Your task to perform on an android device: set default search engine in the chrome app Image 0: 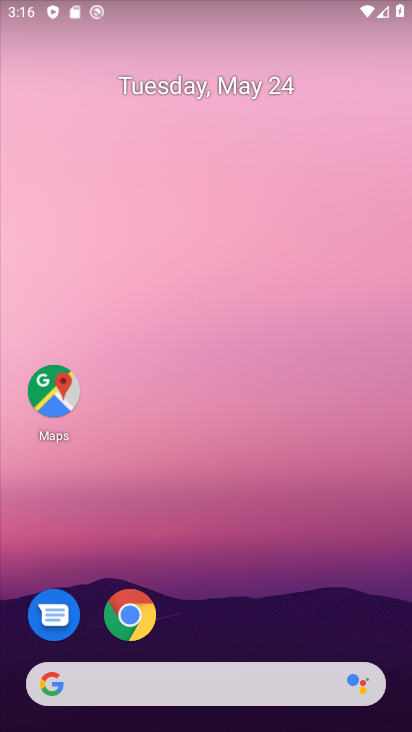
Step 0: drag from (250, 717) to (250, 69)
Your task to perform on an android device: set default search engine in the chrome app Image 1: 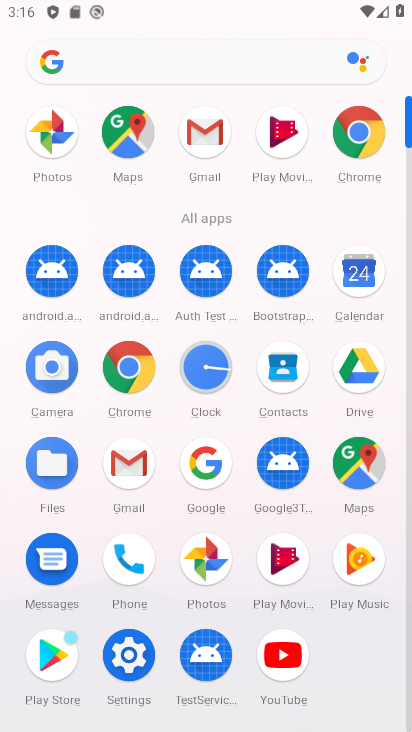
Step 1: click (125, 372)
Your task to perform on an android device: set default search engine in the chrome app Image 2: 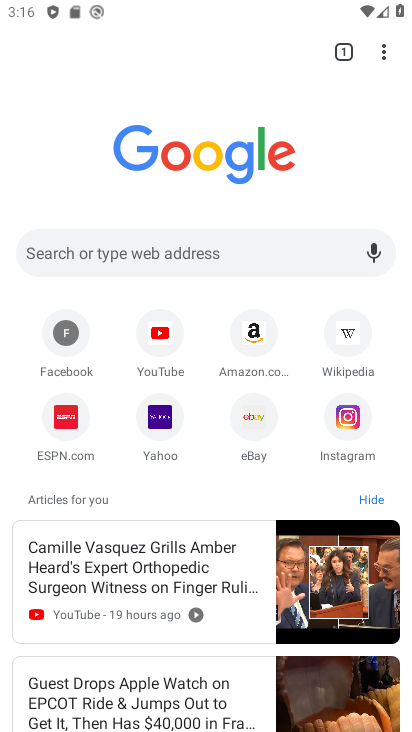
Step 2: click (384, 57)
Your task to perform on an android device: set default search engine in the chrome app Image 3: 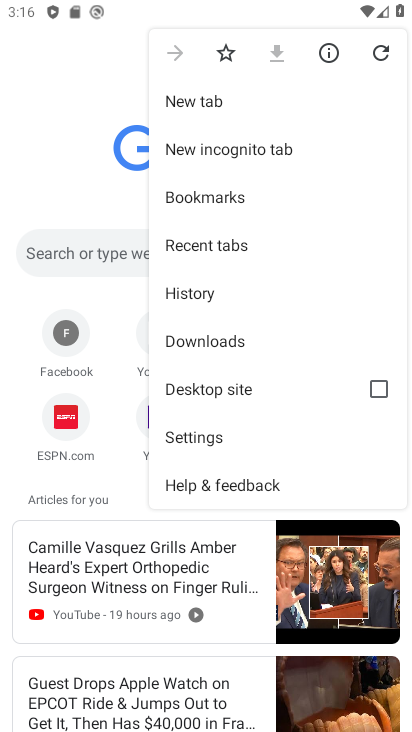
Step 3: click (202, 432)
Your task to perform on an android device: set default search engine in the chrome app Image 4: 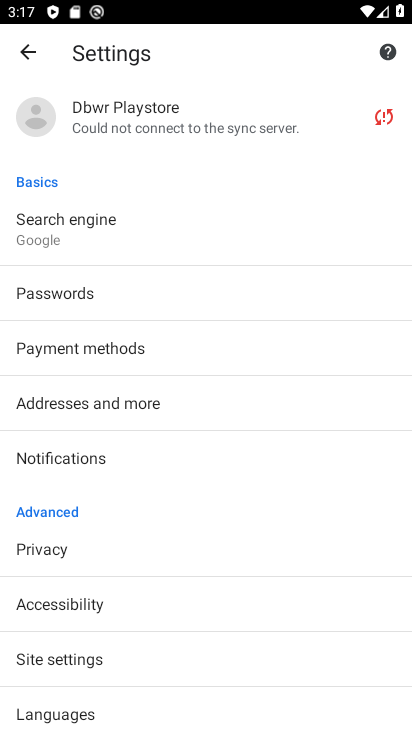
Step 4: click (34, 228)
Your task to perform on an android device: set default search engine in the chrome app Image 5: 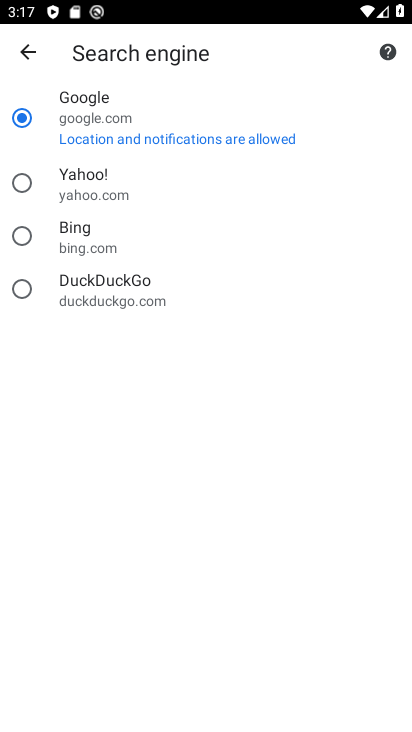
Step 5: click (22, 187)
Your task to perform on an android device: set default search engine in the chrome app Image 6: 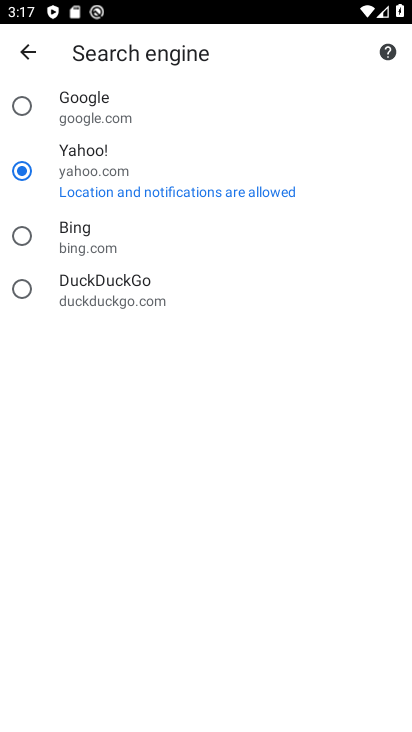
Step 6: task complete